Your task to perform on an android device: see creations saved in the google photos Image 0: 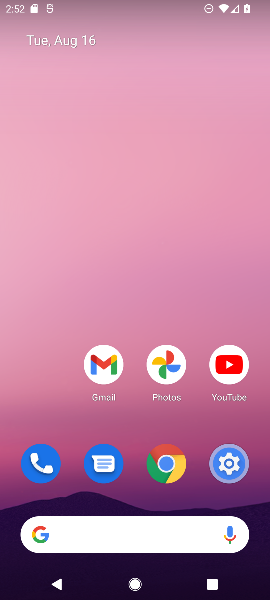
Step 0: drag from (115, 470) to (97, 0)
Your task to perform on an android device: see creations saved in the google photos Image 1: 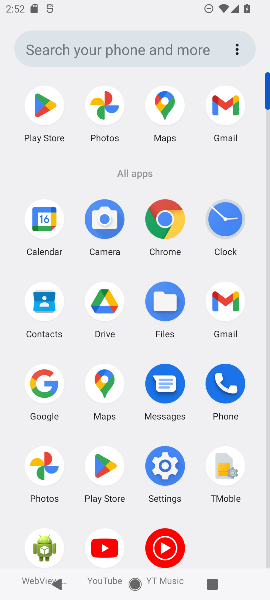
Step 1: click (40, 462)
Your task to perform on an android device: see creations saved in the google photos Image 2: 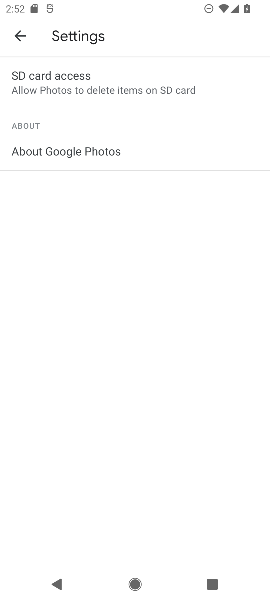
Step 2: click (24, 36)
Your task to perform on an android device: see creations saved in the google photos Image 3: 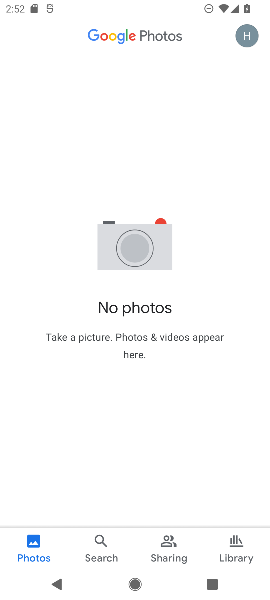
Step 3: click (246, 28)
Your task to perform on an android device: see creations saved in the google photos Image 4: 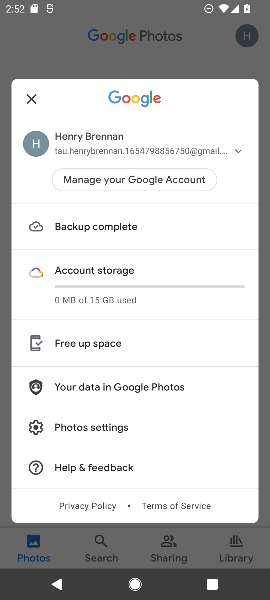
Step 4: click (70, 424)
Your task to perform on an android device: see creations saved in the google photos Image 5: 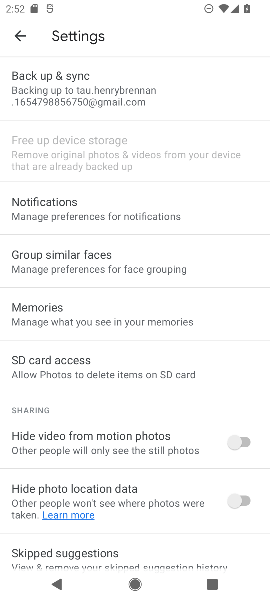
Step 5: click (22, 38)
Your task to perform on an android device: see creations saved in the google photos Image 6: 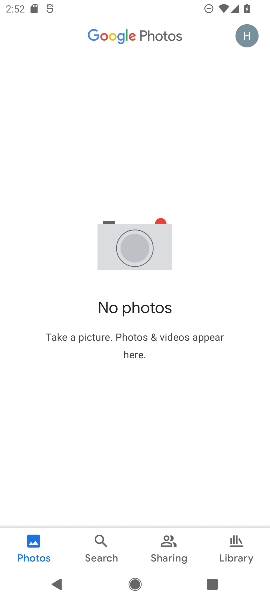
Step 6: click (252, 38)
Your task to perform on an android device: see creations saved in the google photos Image 7: 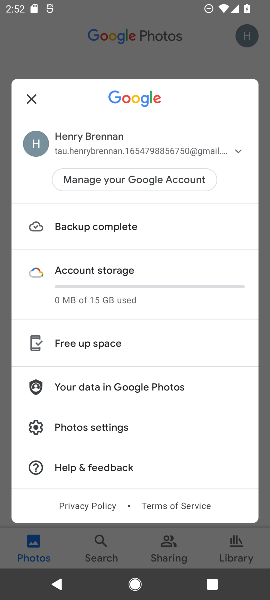
Step 7: click (136, 548)
Your task to perform on an android device: see creations saved in the google photos Image 8: 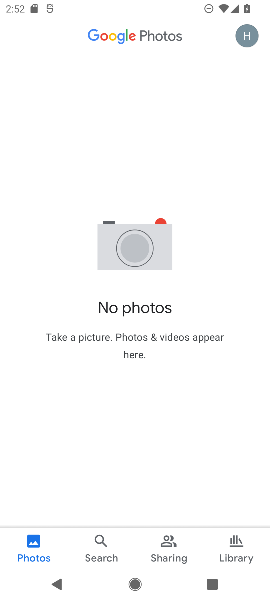
Step 8: click (96, 551)
Your task to perform on an android device: see creations saved in the google photos Image 9: 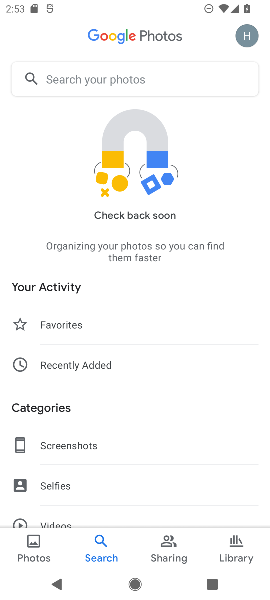
Step 9: drag from (82, 471) to (58, 210)
Your task to perform on an android device: see creations saved in the google photos Image 10: 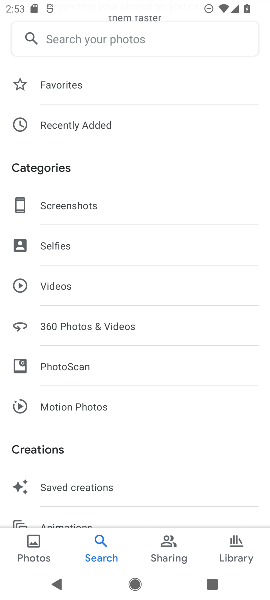
Step 10: click (94, 491)
Your task to perform on an android device: see creations saved in the google photos Image 11: 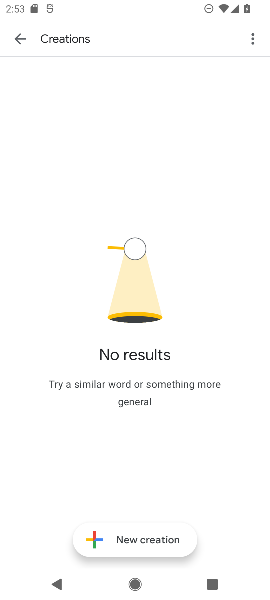
Step 11: task complete